Your task to perform on an android device: Open Maps and search for coffee Image 0: 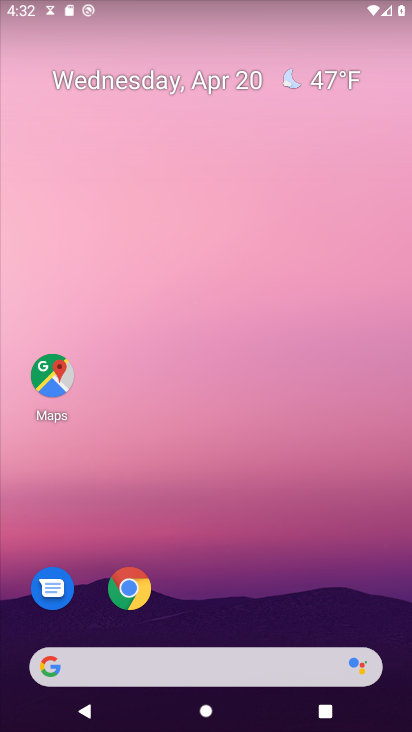
Step 0: drag from (304, 410) to (302, 18)
Your task to perform on an android device: Open Maps and search for coffee Image 1: 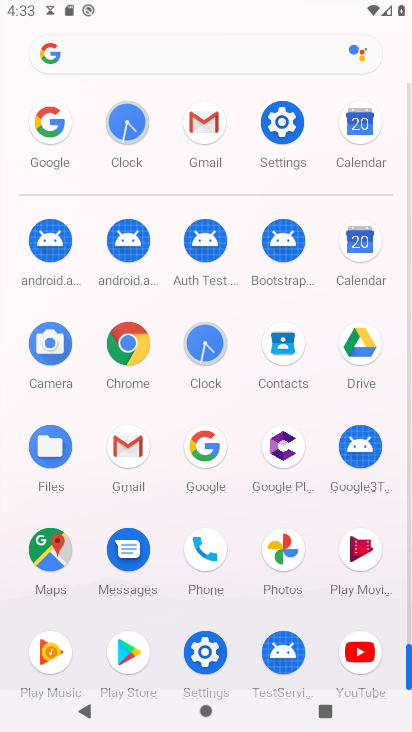
Step 1: click (44, 546)
Your task to perform on an android device: Open Maps and search for coffee Image 2: 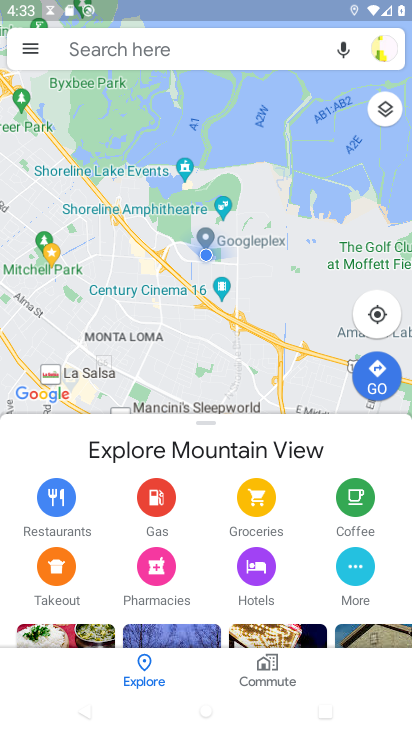
Step 2: click (112, 47)
Your task to perform on an android device: Open Maps and search for coffee Image 3: 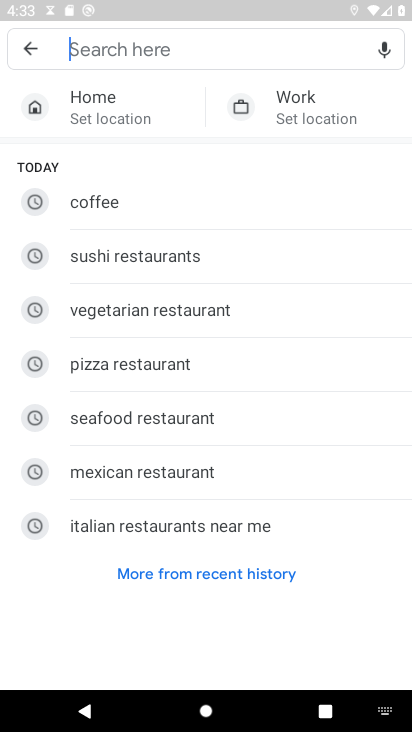
Step 3: type "coffee"
Your task to perform on an android device: Open Maps and search for coffee Image 4: 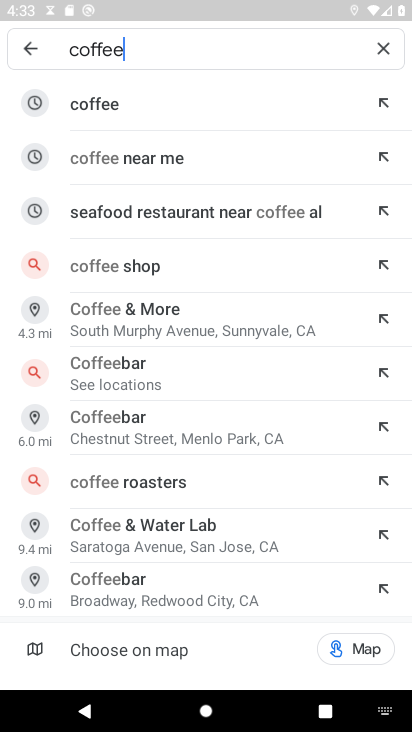
Step 4: click (122, 87)
Your task to perform on an android device: Open Maps and search for coffee Image 5: 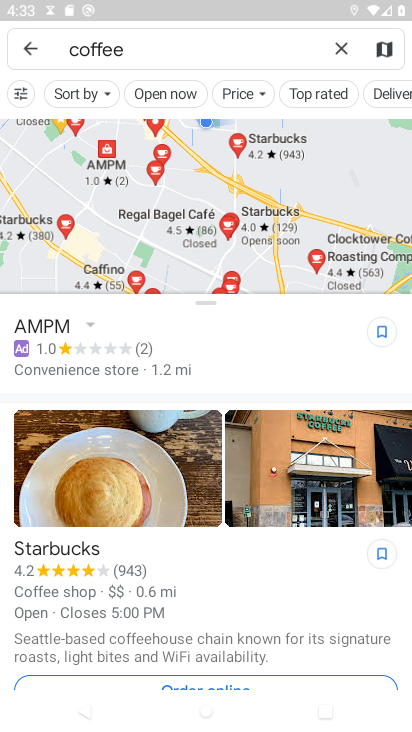
Step 5: task complete